Your task to perform on an android device: toggle javascript in the chrome app Image 0: 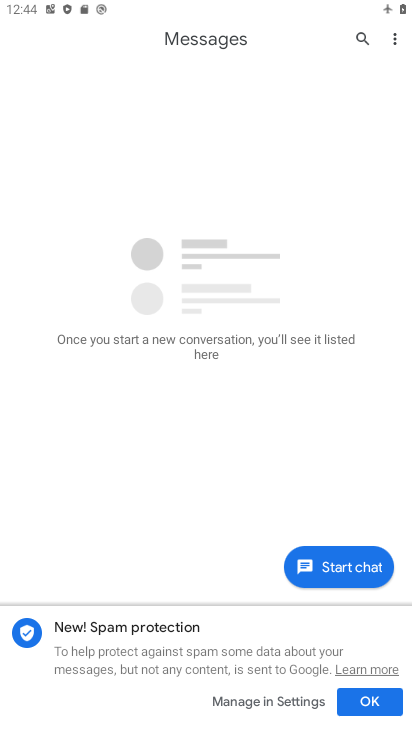
Step 0: press home button
Your task to perform on an android device: toggle javascript in the chrome app Image 1: 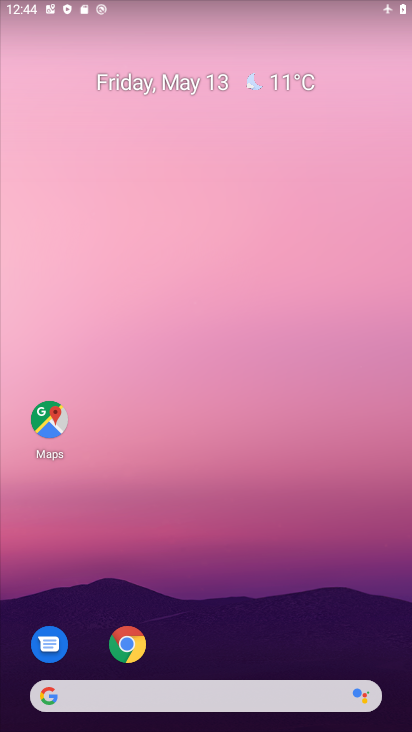
Step 1: click (130, 646)
Your task to perform on an android device: toggle javascript in the chrome app Image 2: 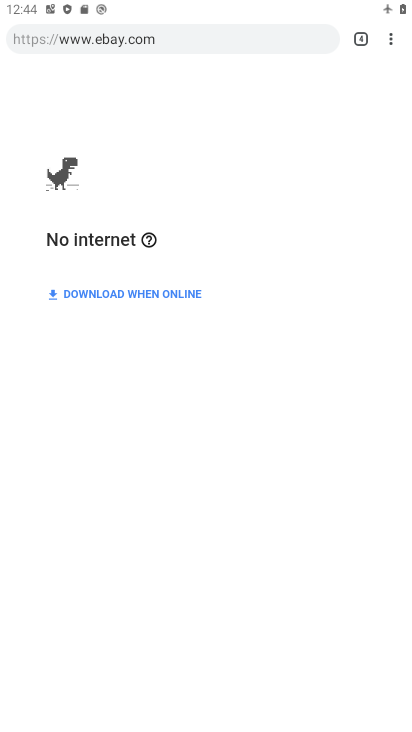
Step 2: click (390, 38)
Your task to perform on an android device: toggle javascript in the chrome app Image 3: 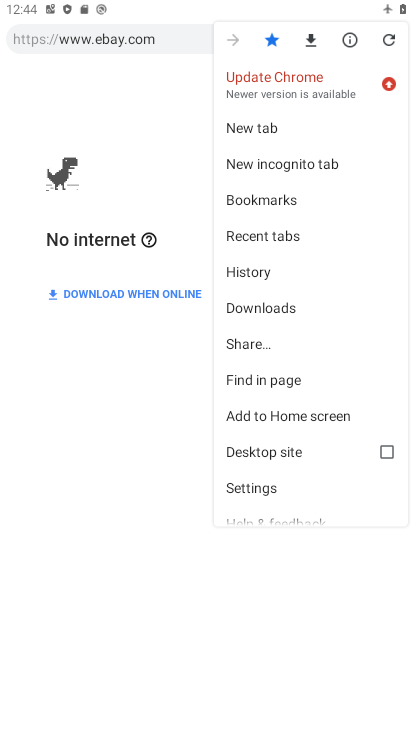
Step 3: click (257, 485)
Your task to perform on an android device: toggle javascript in the chrome app Image 4: 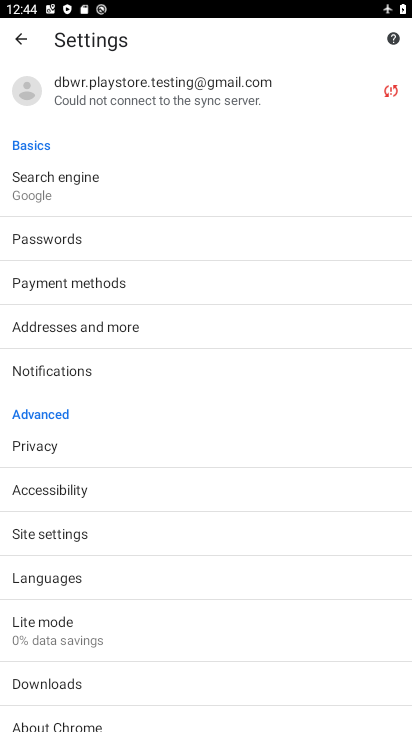
Step 4: click (49, 534)
Your task to perform on an android device: toggle javascript in the chrome app Image 5: 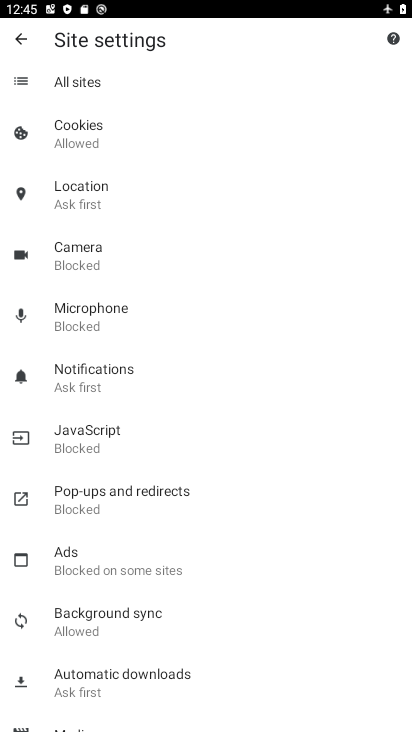
Step 5: click (79, 431)
Your task to perform on an android device: toggle javascript in the chrome app Image 6: 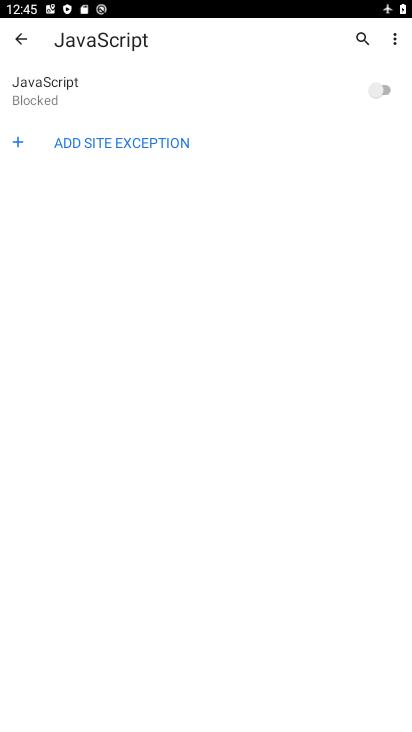
Step 6: click (386, 84)
Your task to perform on an android device: toggle javascript in the chrome app Image 7: 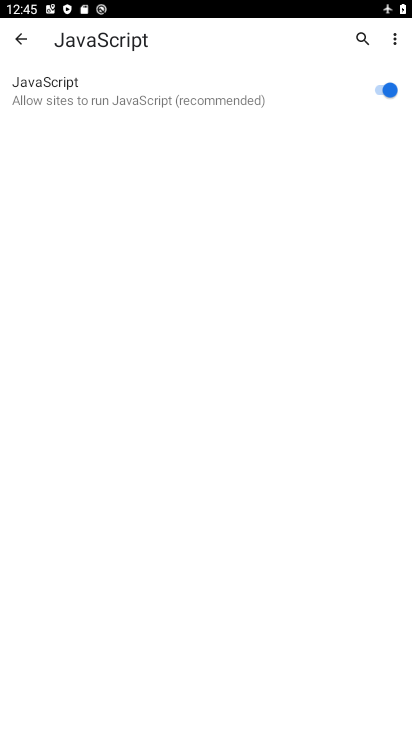
Step 7: task complete